Your task to perform on an android device: open a new tab in the chrome app Image 0: 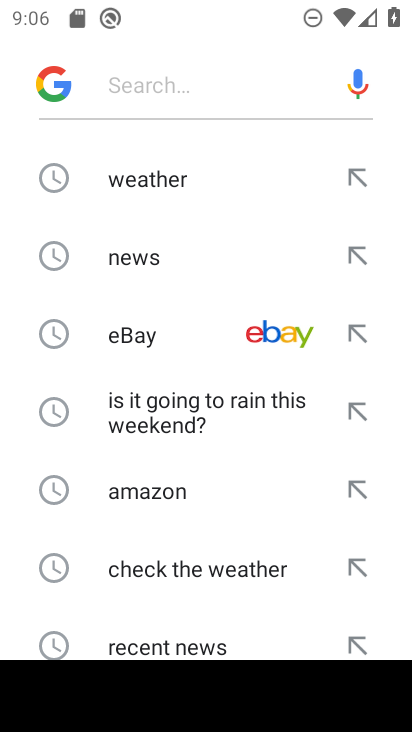
Step 0: press back button
Your task to perform on an android device: open a new tab in the chrome app Image 1: 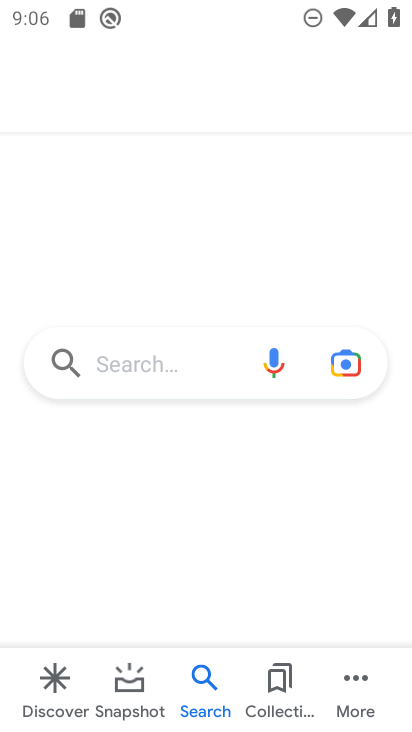
Step 1: press back button
Your task to perform on an android device: open a new tab in the chrome app Image 2: 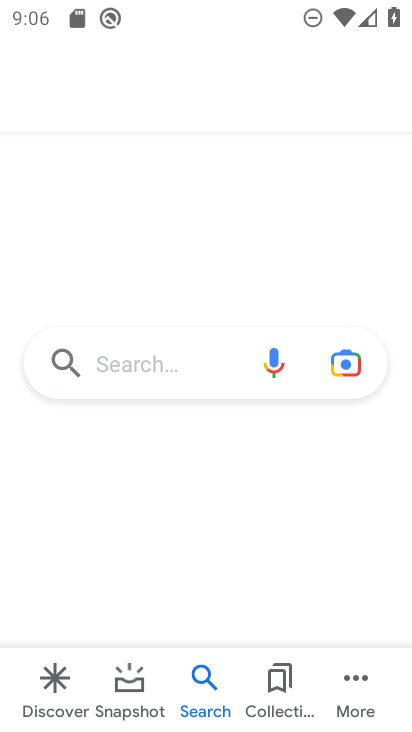
Step 2: press back button
Your task to perform on an android device: open a new tab in the chrome app Image 3: 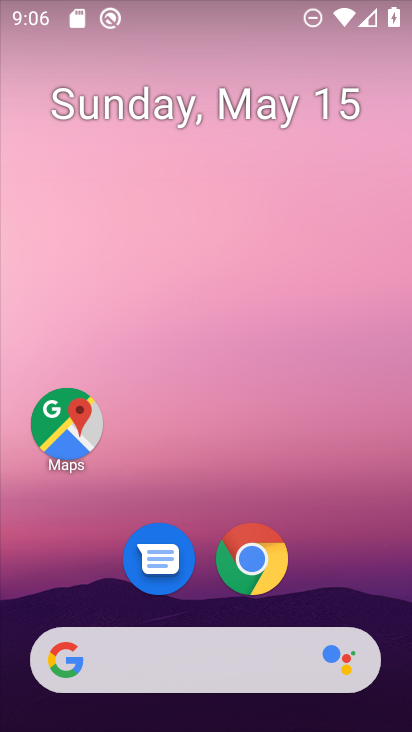
Step 3: click (257, 586)
Your task to perform on an android device: open a new tab in the chrome app Image 4: 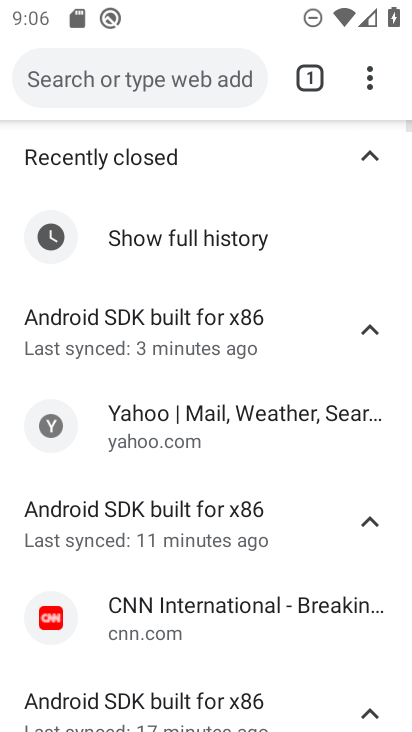
Step 4: click (308, 89)
Your task to perform on an android device: open a new tab in the chrome app Image 5: 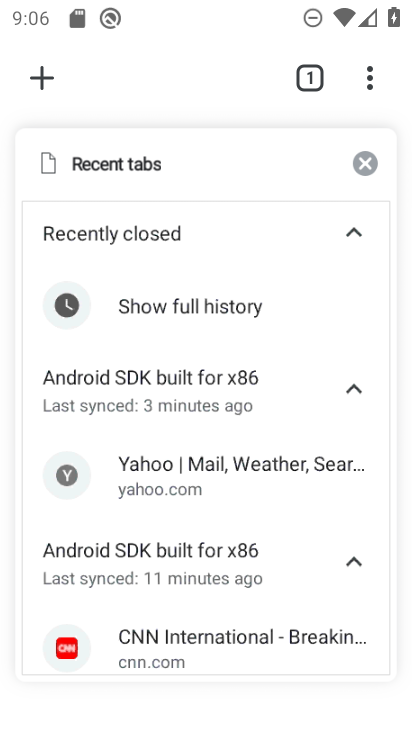
Step 5: click (47, 85)
Your task to perform on an android device: open a new tab in the chrome app Image 6: 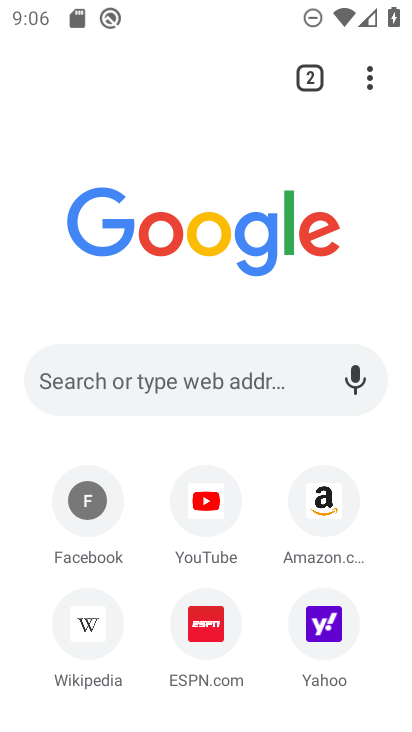
Step 6: task complete